Your task to perform on an android device: Search for macbook on amazon.com, select the first entry, and add it to the cart. Image 0: 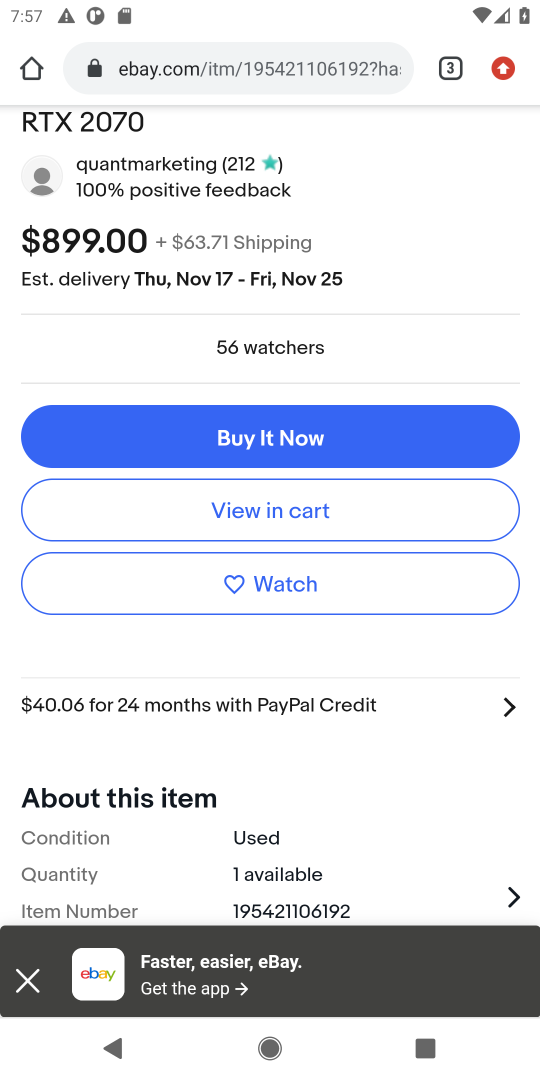
Step 0: press home button
Your task to perform on an android device: Search for macbook on amazon.com, select the first entry, and add it to the cart. Image 1: 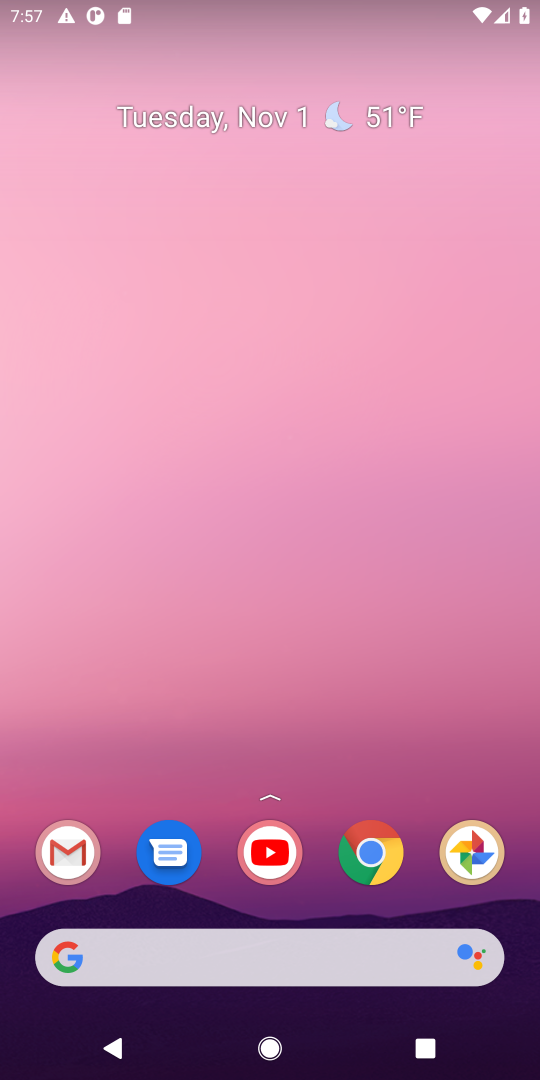
Step 1: drag from (341, 886) to (325, 238)
Your task to perform on an android device: Search for macbook on amazon.com, select the first entry, and add it to the cart. Image 2: 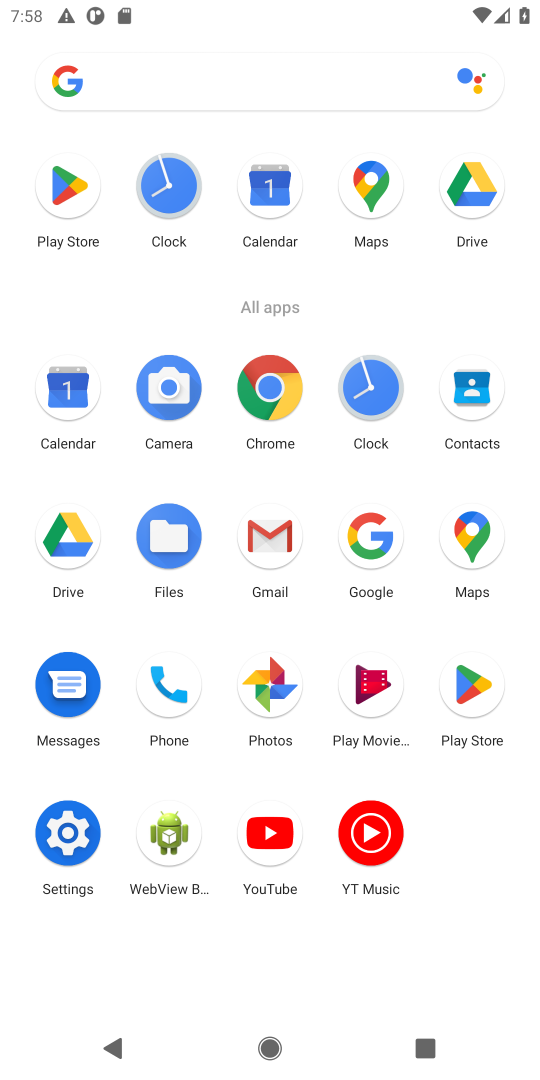
Step 2: click (368, 564)
Your task to perform on an android device: Search for macbook on amazon.com, select the first entry, and add it to the cart. Image 3: 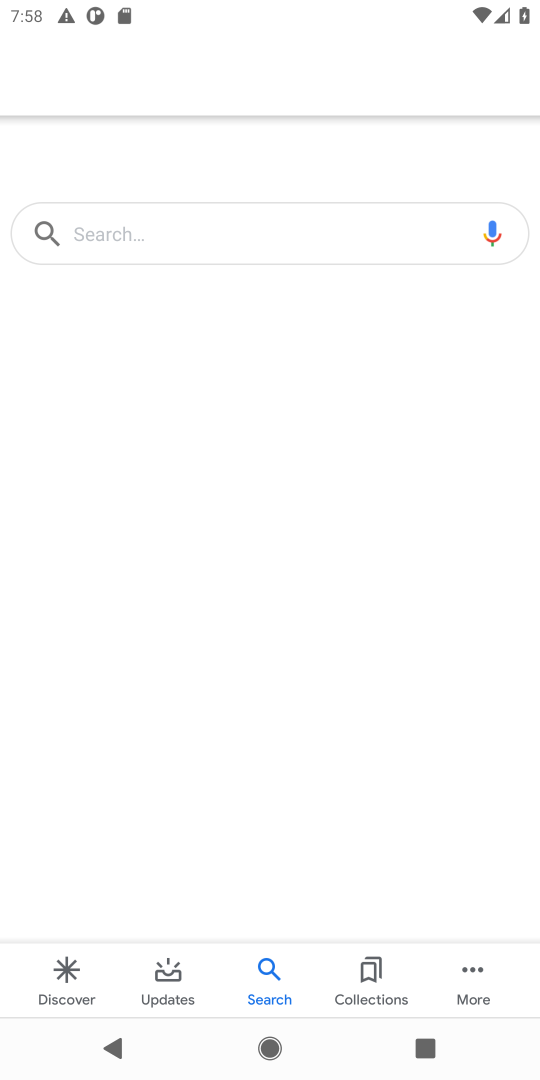
Step 3: click (276, 244)
Your task to perform on an android device: Search for macbook on amazon.com, select the first entry, and add it to the cart. Image 4: 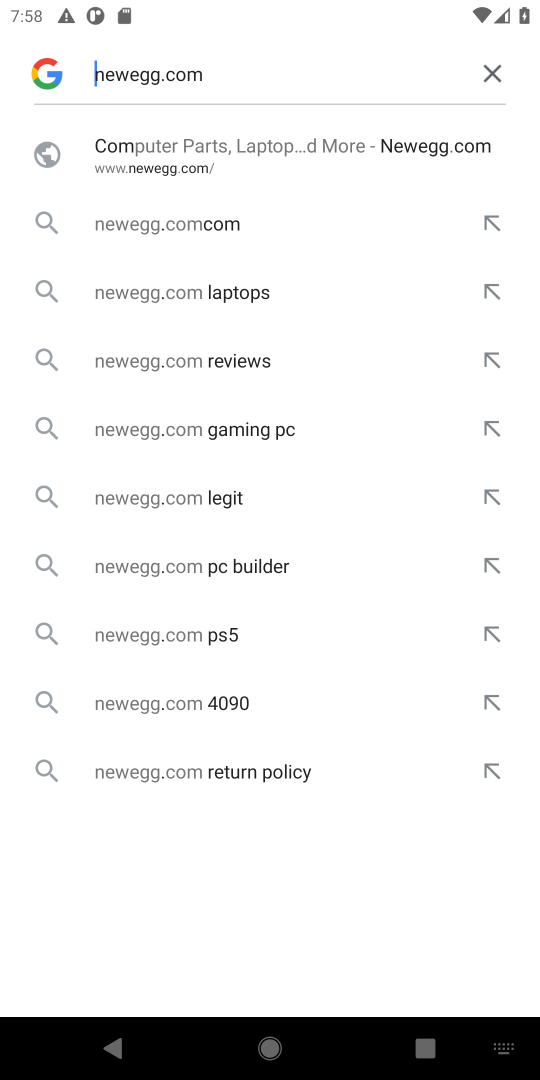
Step 4: click (488, 74)
Your task to perform on an android device: Search for macbook on amazon.com, select the first entry, and add it to the cart. Image 5: 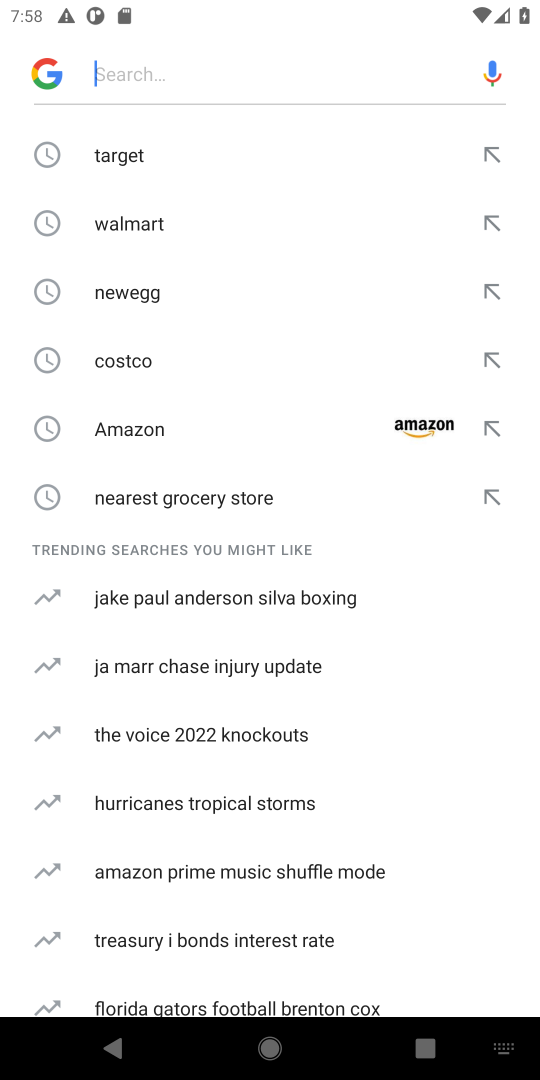
Step 5: type "amazon.com"
Your task to perform on an android device: Search for macbook on amazon.com, select the first entry, and add it to the cart. Image 6: 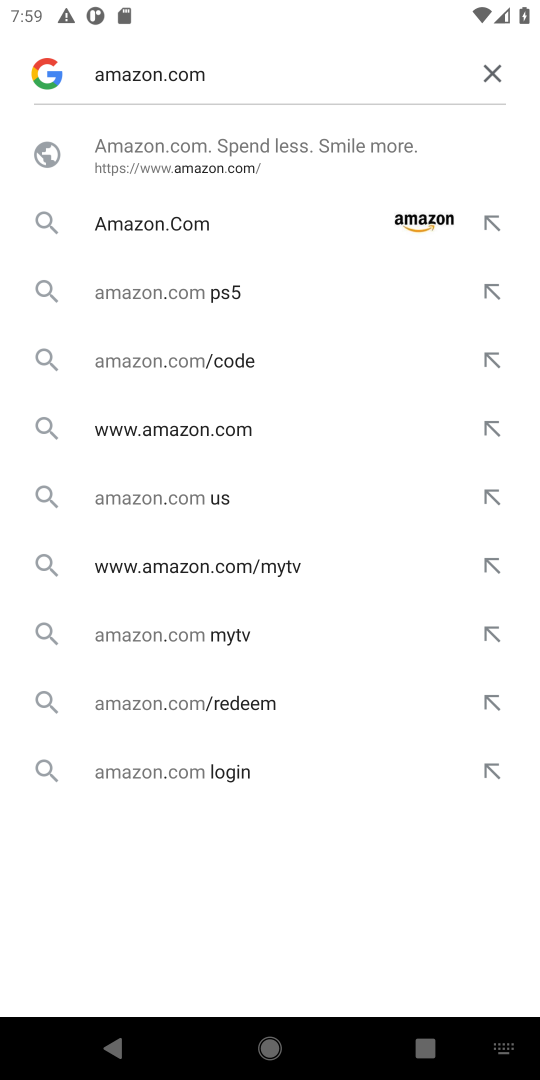
Step 6: click (199, 152)
Your task to perform on an android device: Search for macbook on amazon.com, select the first entry, and add it to the cart. Image 7: 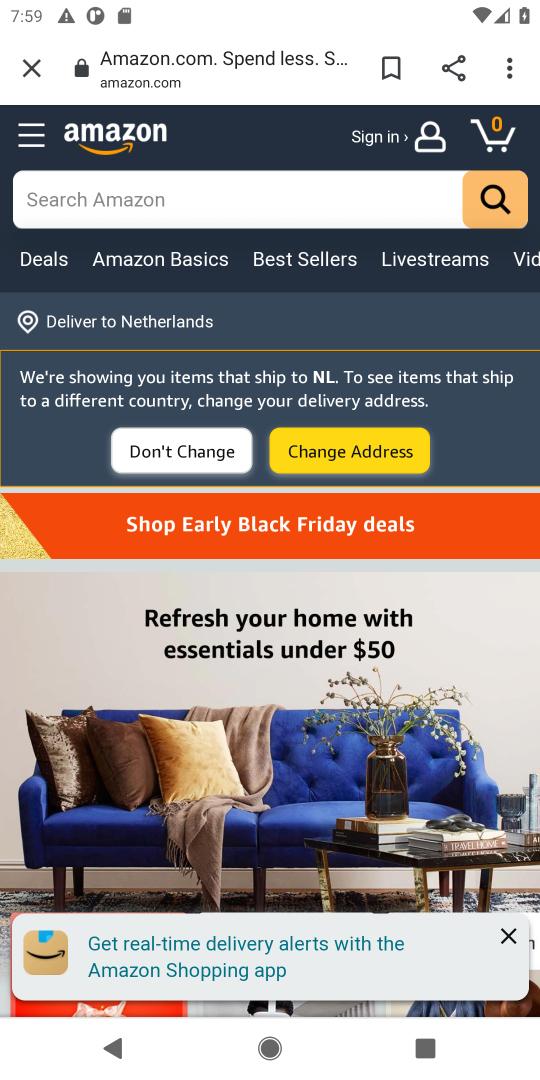
Step 7: click (142, 202)
Your task to perform on an android device: Search for macbook on amazon.com, select the first entry, and add it to the cart. Image 8: 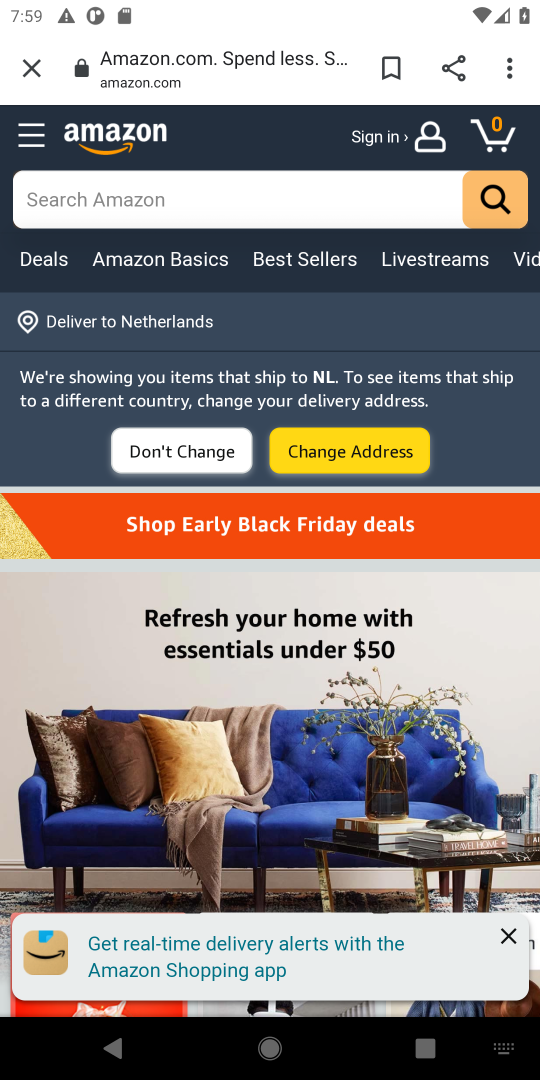
Step 8: type "macbook"
Your task to perform on an android device: Search for macbook on amazon.com, select the first entry, and add it to the cart. Image 9: 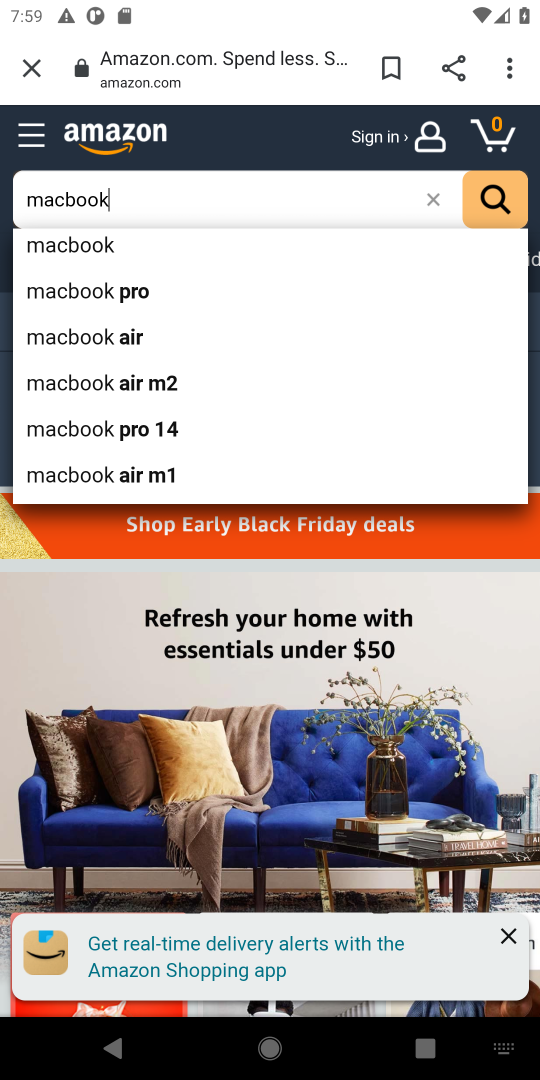
Step 9: click (119, 245)
Your task to perform on an android device: Search for macbook on amazon.com, select the first entry, and add it to the cart. Image 10: 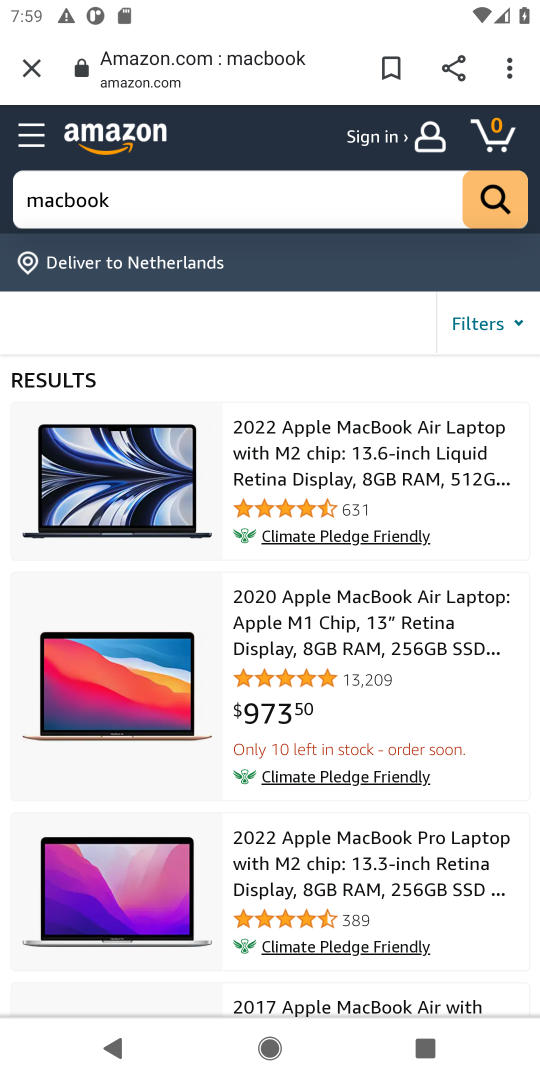
Step 10: click (334, 446)
Your task to perform on an android device: Search for macbook on amazon.com, select the first entry, and add it to the cart. Image 11: 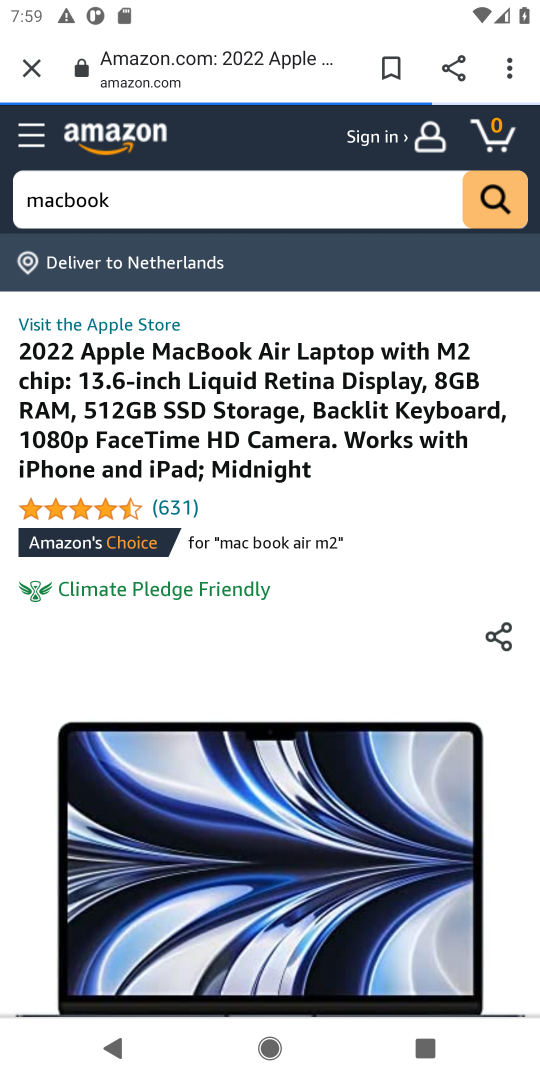
Step 11: task complete